Your task to perform on an android device: Check the weather Image 0: 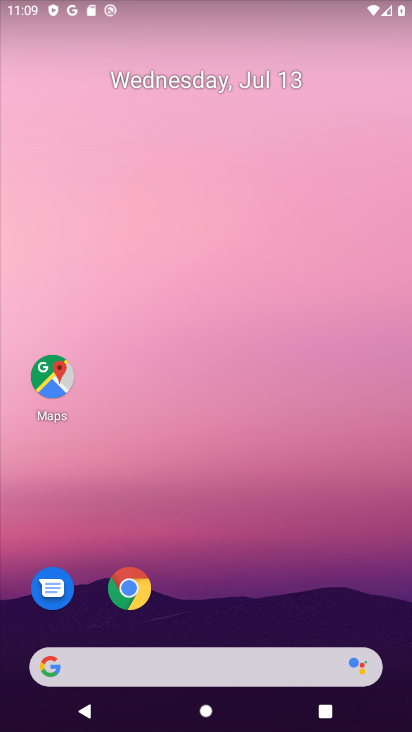
Step 0: drag from (206, 621) to (255, 125)
Your task to perform on an android device: Check the weather Image 1: 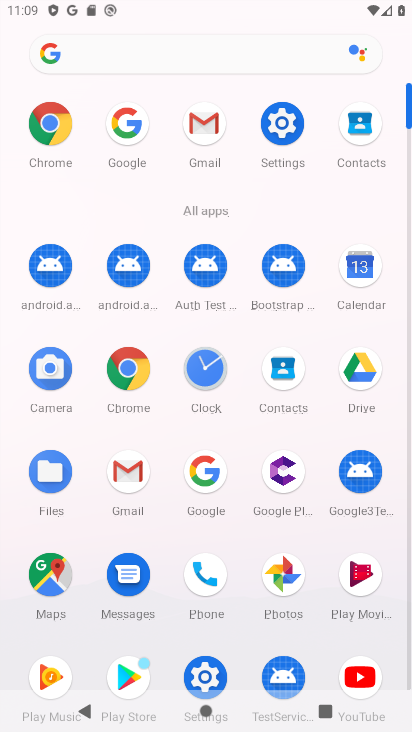
Step 1: click (208, 468)
Your task to perform on an android device: Check the weather Image 2: 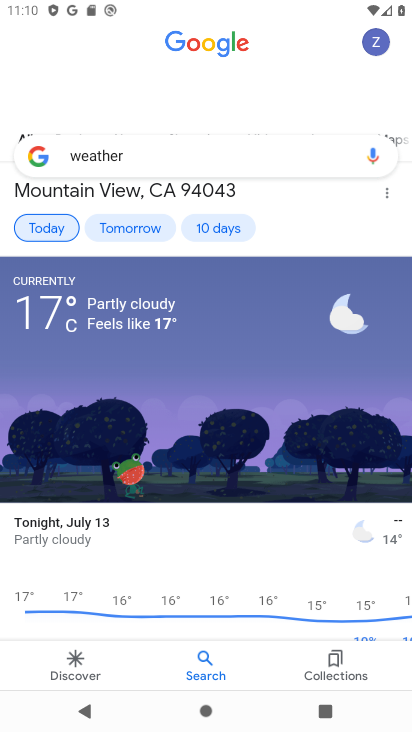
Step 2: task complete